Your task to perform on an android device: What's on my calendar today? Image 0: 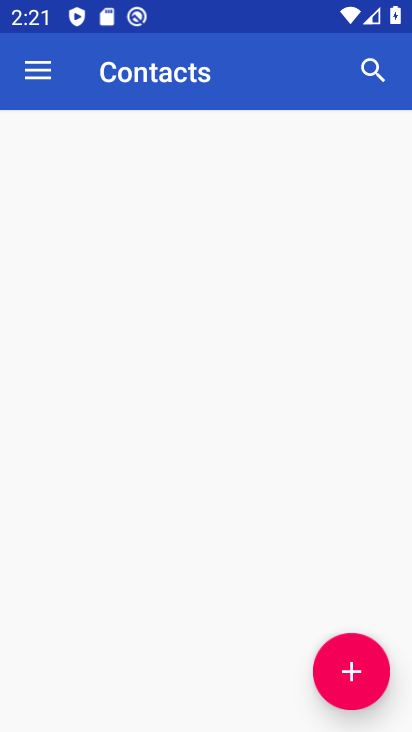
Step 0: press home button
Your task to perform on an android device: What's on my calendar today? Image 1: 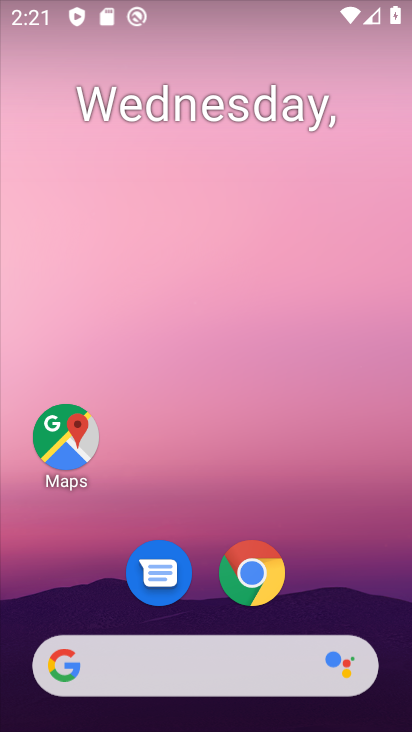
Step 1: drag from (192, 591) to (167, 164)
Your task to perform on an android device: What's on my calendar today? Image 2: 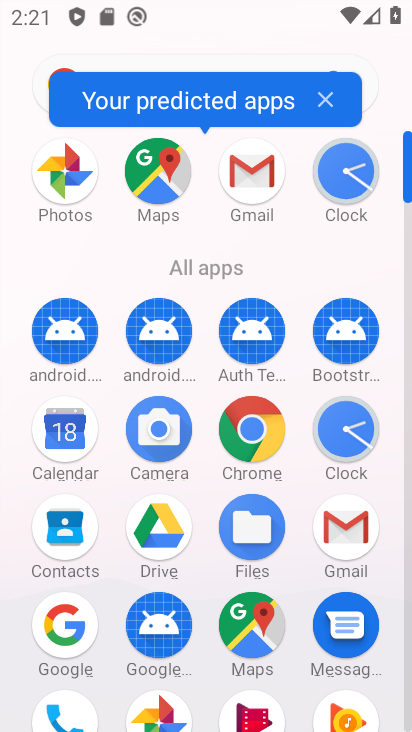
Step 2: click (67, 433)
Your task to perform on an android device: What's on my calendar today? Image 3: 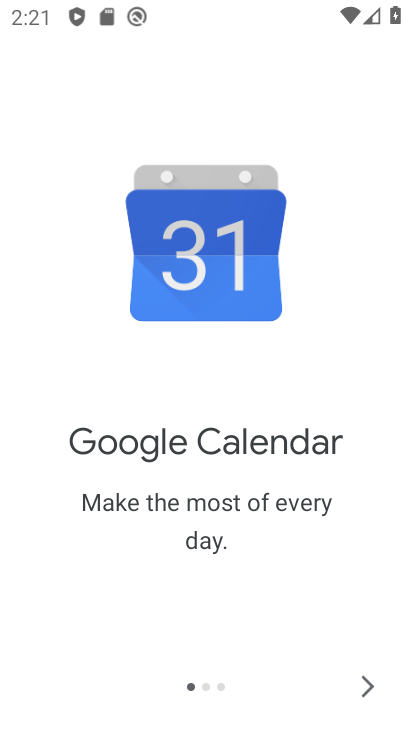
Step 3: click (360, 693)
Your task to perform on an android device: What's on my calendar today? Image 4: 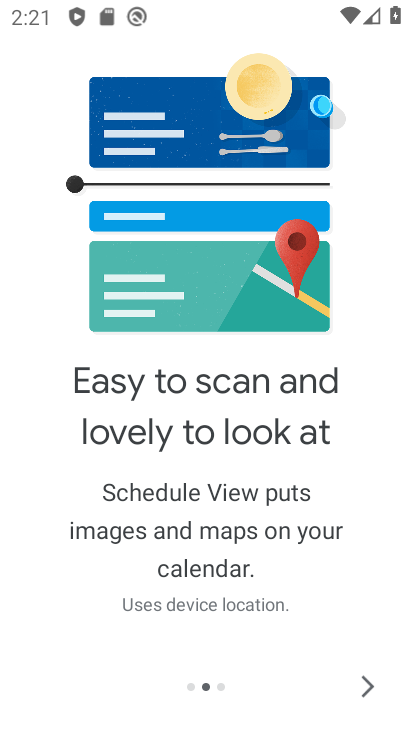
Step 4: click (358, 691)
Your task to perform on an android device: What's on my calendar today? Image 5: 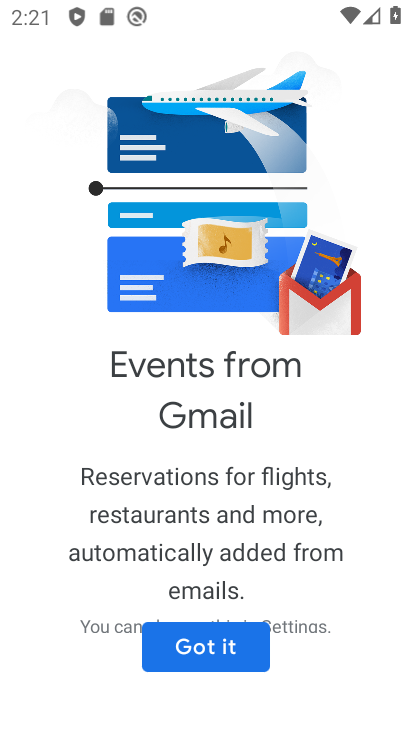
Step 5: click (243, 642)
Your task to perform on an android device: What's on my calendar today? Image 6: 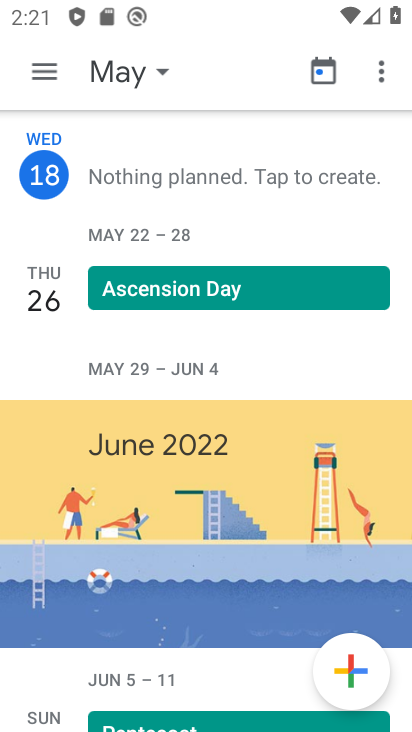
Step 6: click (146, 78)
Your task to perform on an android device: What's on my calendar today? Image 7: 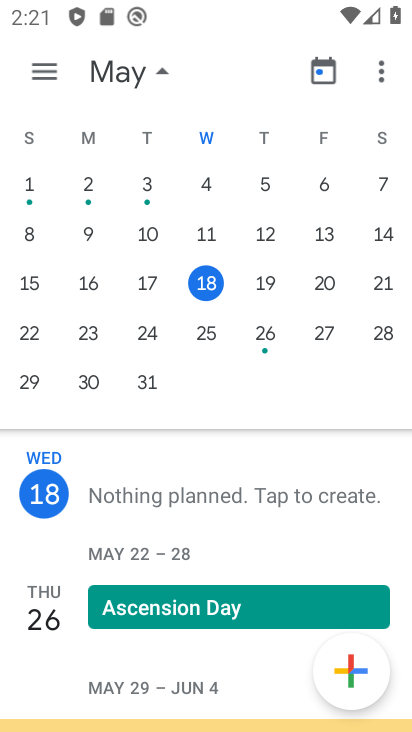
Step 7: click (213, 279)
Your task to perform on an android device: What's on my calendar today? Image 8: 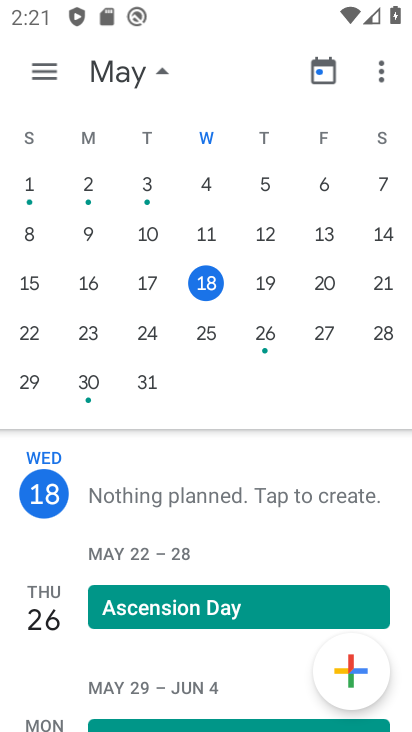
Step 8: task complete